Your task to perform on an android device: Do I have any events tomorrow? Image 0: 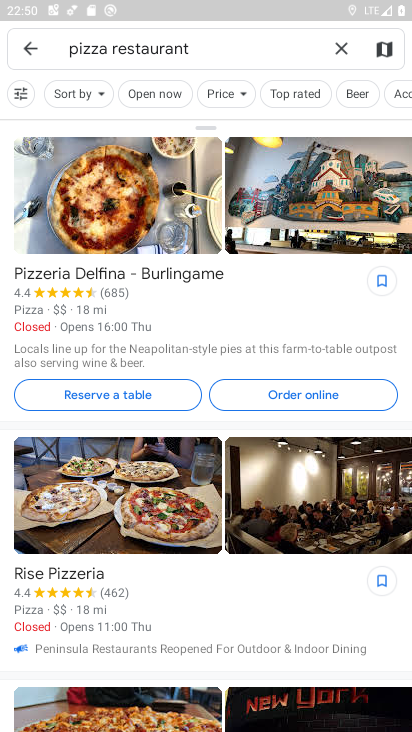
Step 0: press home button
Your task to perform on an android device: Do I have any events tomorrow? Image 1: 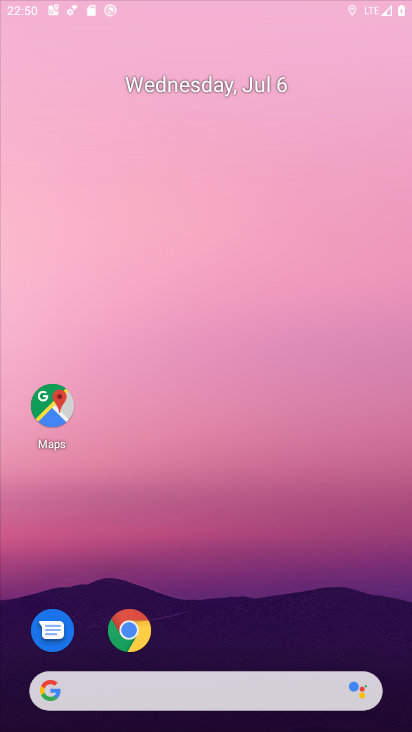
Step 1: drag from (250, 570) to (287, 158)
Your task to perform on an android device: Do I have any events tomorrow? Image 2: 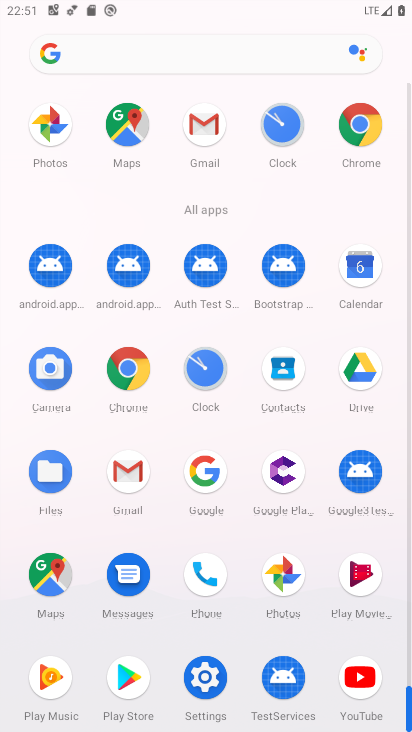
Step 2: click (351, 268)
Your task to perform on an android device: Do I have any events tomorrow? Image 3: 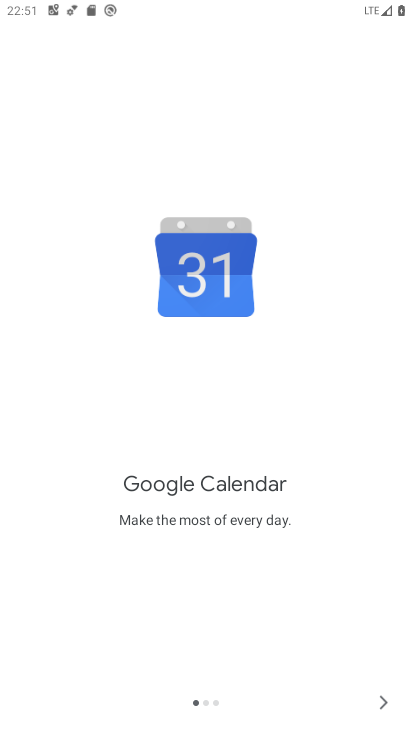
Step 3: drag from (177, 561) to (234, 233)
Your task to perform on an android device: Do I have any events tomorrow? Image 4: 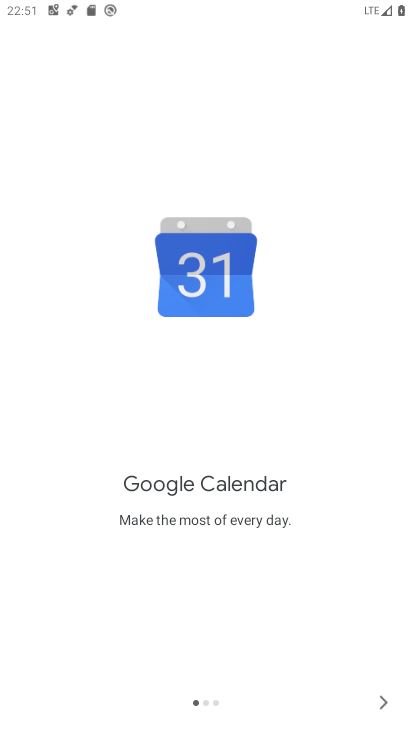
Step 4: click (387, 699)
Your task to perform on an android device: Do I have any events tomorrow? Image 5: 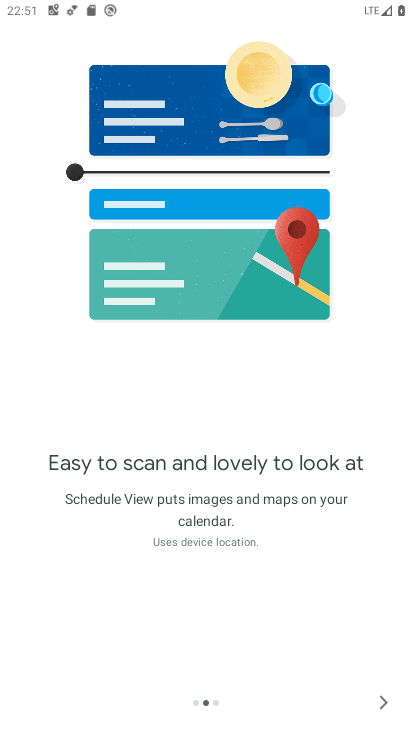
Step 5: click (374, 697)
Your task to perform on an android device: Do I have any events tomorrow? Image 6: 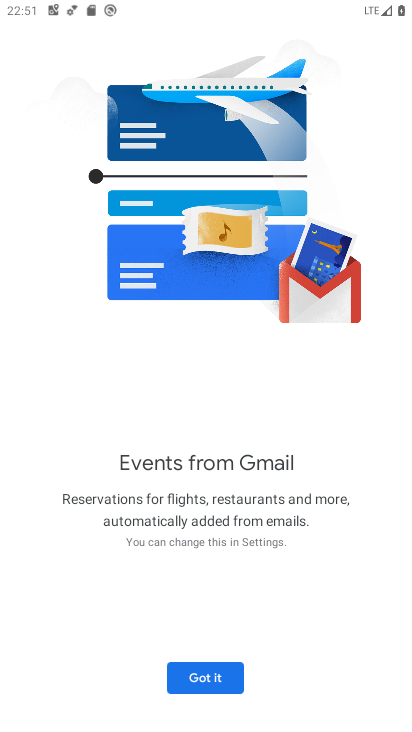
Step 6: click (183, 671)
Your task to perform on an android device: Do I have any events tomorrow? Image 7: 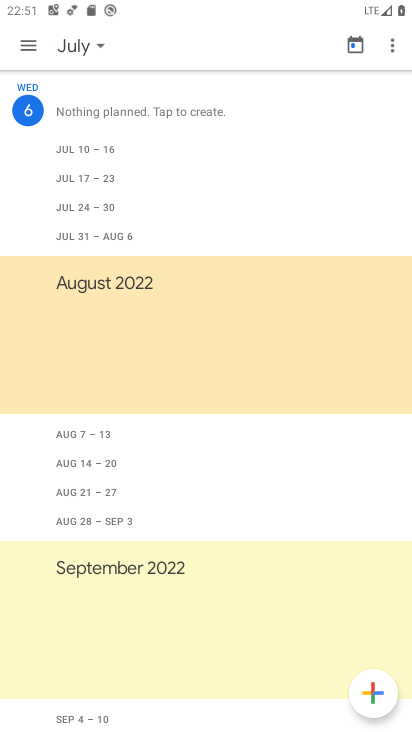
Step 7: drag from (194, 594) to (241, 268)
Your task to perform on an android device: Do I have any events tomorrow? Image 8: 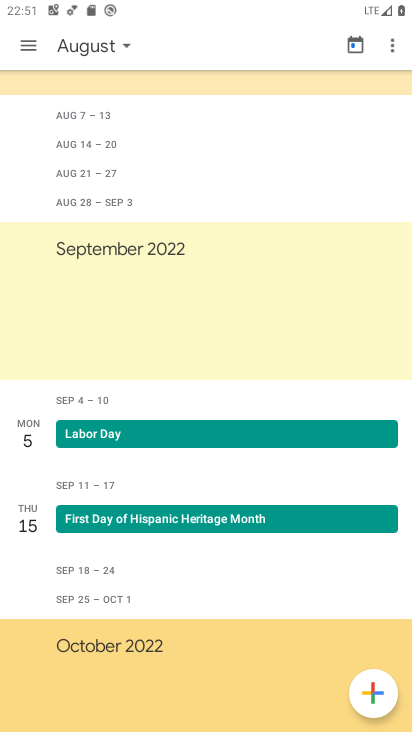
Step 8: drag from (245, 241) to (306, 695)
Your task to perform on an android device: Do I have any events tomorrow? Image 9: 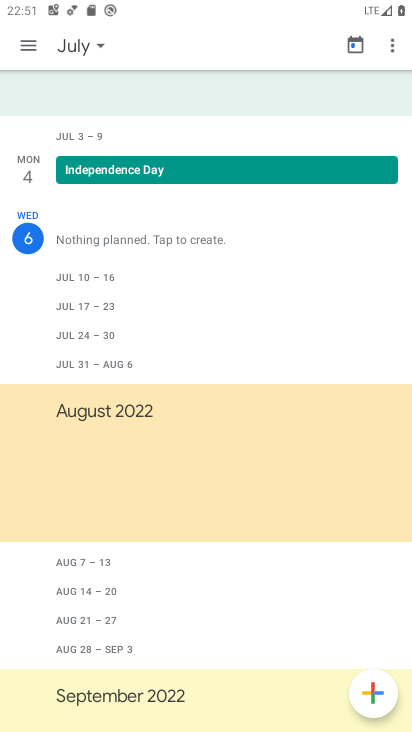
Step 9: click (90, 49)
Your task to perform on an android device: Do I have any events tomorrow? Image 10: 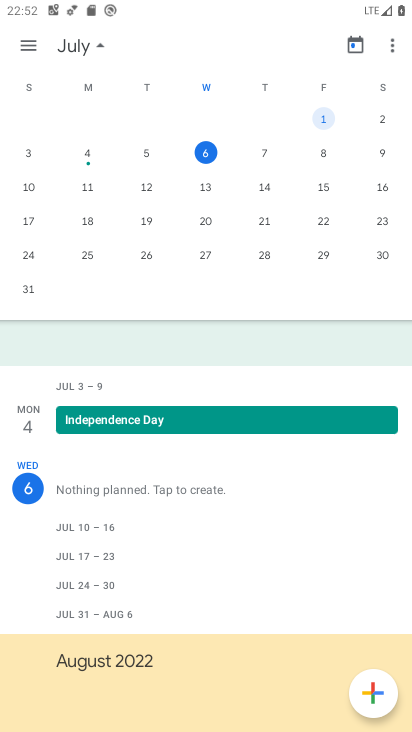
Step 10: click (261, 147)
Your task to perform on an android device: Do I have any events tomorrow? Image 11: 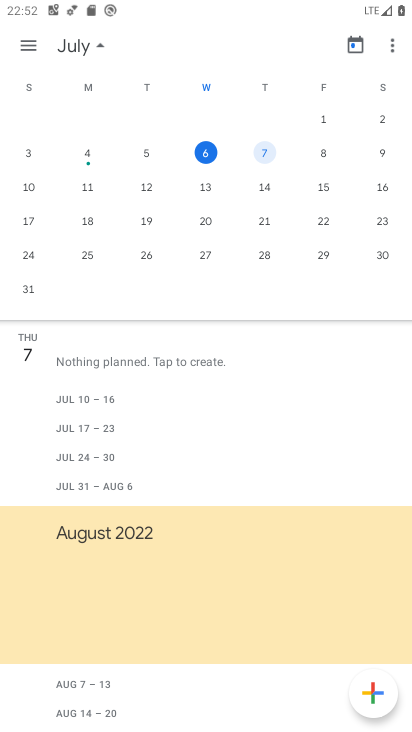
Step 11: task complete